Your task to perform on an android device: Open Google Chrome and click the shortcut for Amazon.com Image 0: 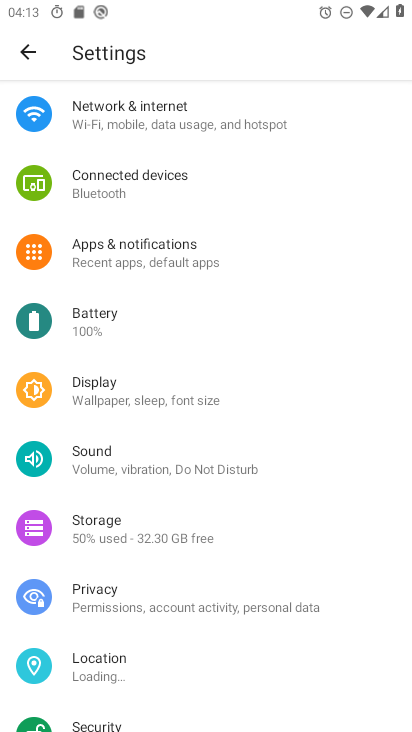
Step 0: press home button
Your task to perform on an android device: Open Google Chrome and click the shortcut for Amazon.com Image 1: 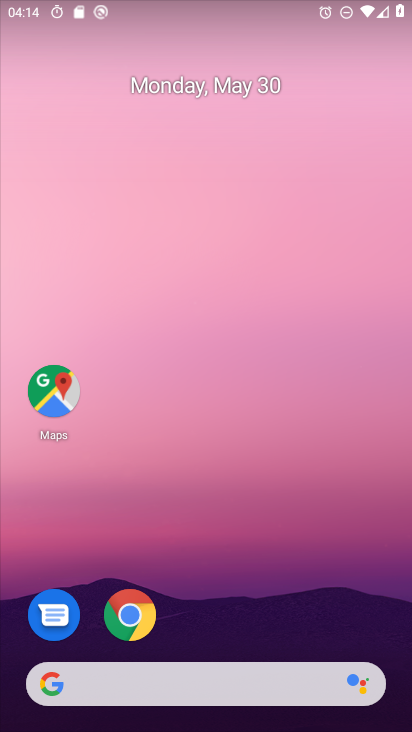
Step 1: click (130, 615)
Your task to perform on an android device: Open Google Chrome and click the shortcut for Amazon.com Image 2: 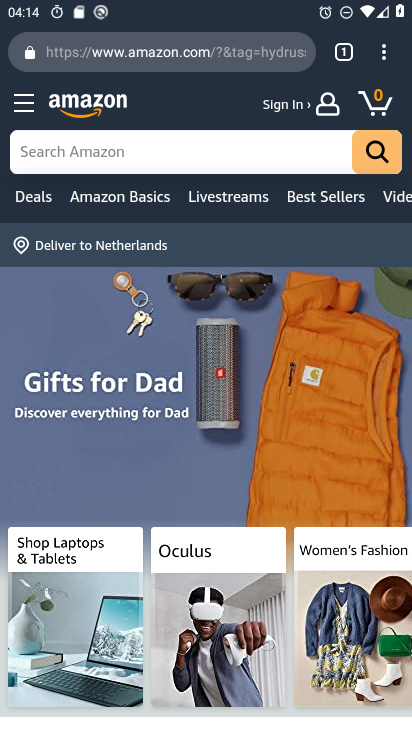
Step 2: click (387, 55)
Your task to perform on an android device: Open Google Chrome and click the shortcut for Amazon.com Image 3: 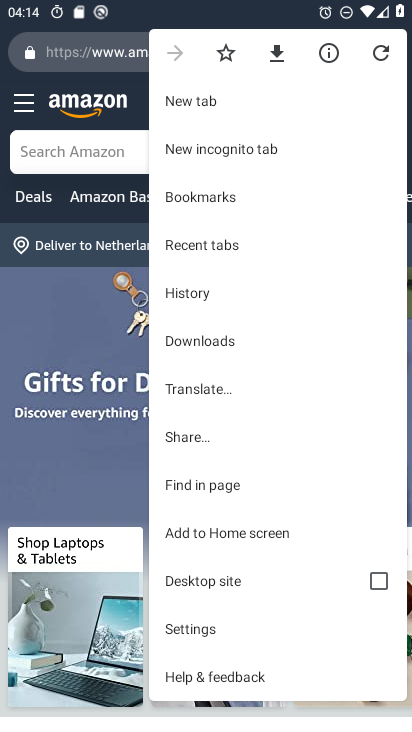
Step 3: click (229, 529)
Your task to perform on an android device: Open Google Chrome and click the shortcut for Amazon.com Image 4: 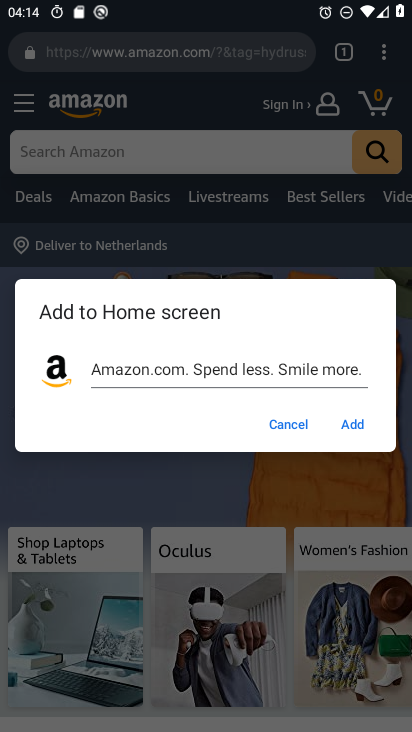
Step 4: click (348, 414)
Your task to perform on an android device: Open Google Chrome and click the shortcut for Amazon.com Image 5: 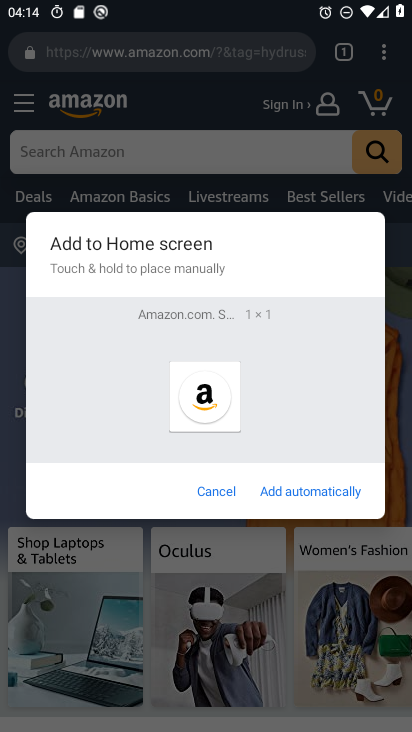
Step 5: click (339, 487)
Your task to perform on an android device: Open Google Chrome and click the shortcut for Amazon.com Image 6: 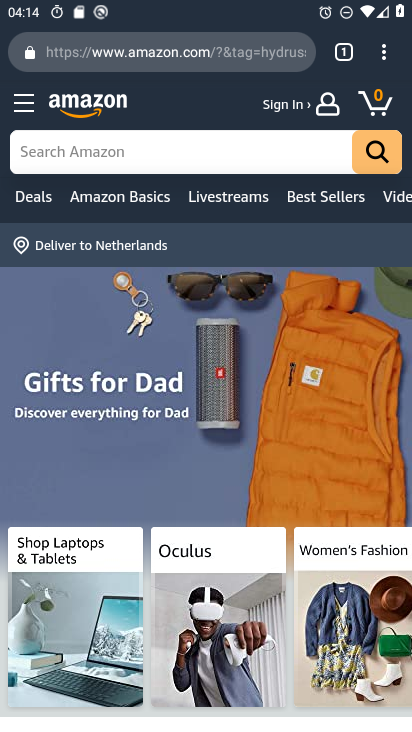
Step 6: task complete